Your task to perform on an android device: toggle priority inbox in the gmail app Image 0: 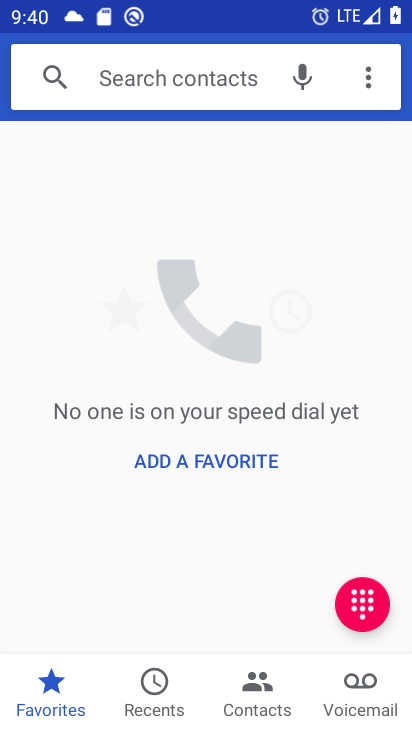
Step 0: press home button
Your task to perform on an android device: toggle priority inbox in the gmail app Image 1: 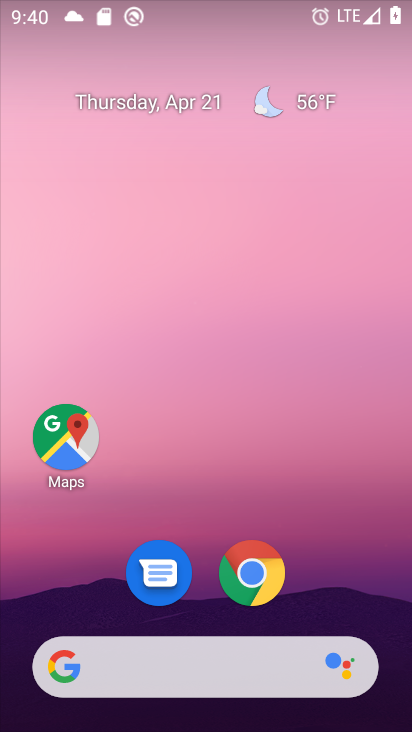
Step 1: drag from (198, 481) to (250, 20)
Your task to perform on an android device: toggle priority inbox in the gmail app Image 2: 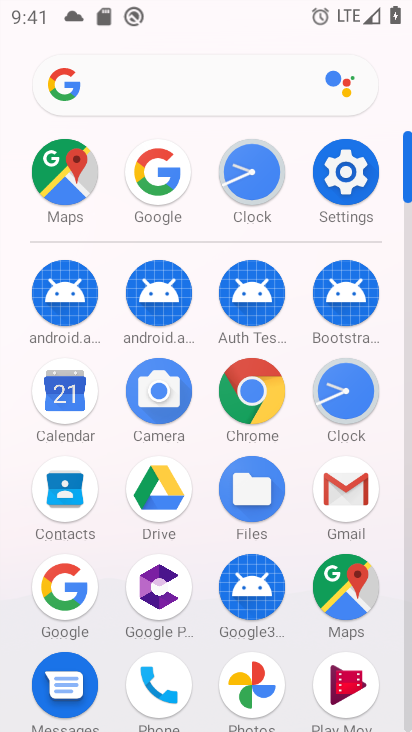
Step 2: click (344, 482)
Your task to perform on an android device: toggle priority inbox in the gmail app Image 3: 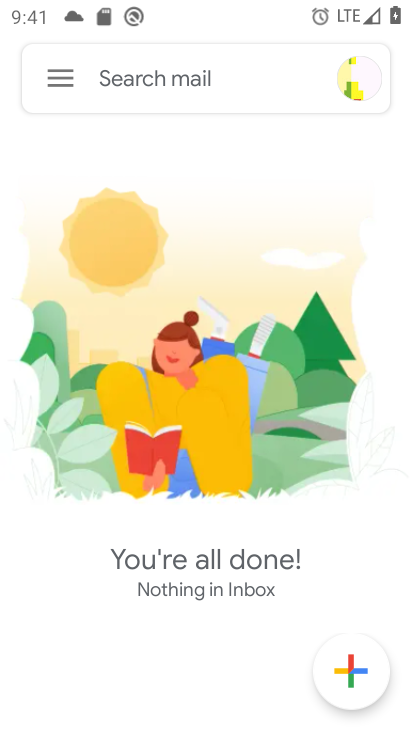
Step 3: click (64, 78)
Your task to perform on an android device: toggle priority inbox in the gmail app Image 4: 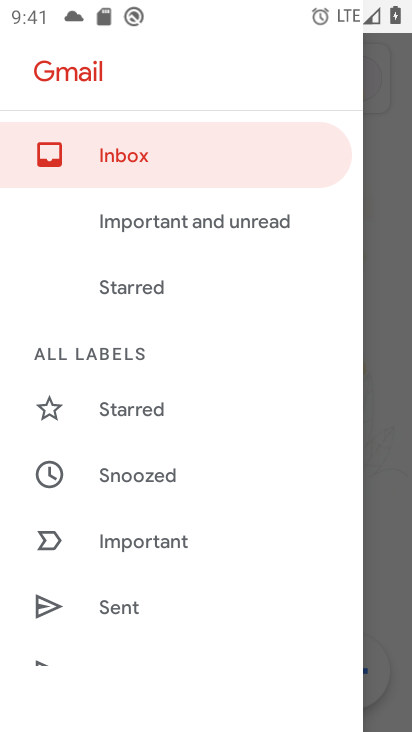
Step 4: drag from (192, 575) to (245, 430)
Your task to perform on an android device: toggle priority inbox in the gmail app Image 5: 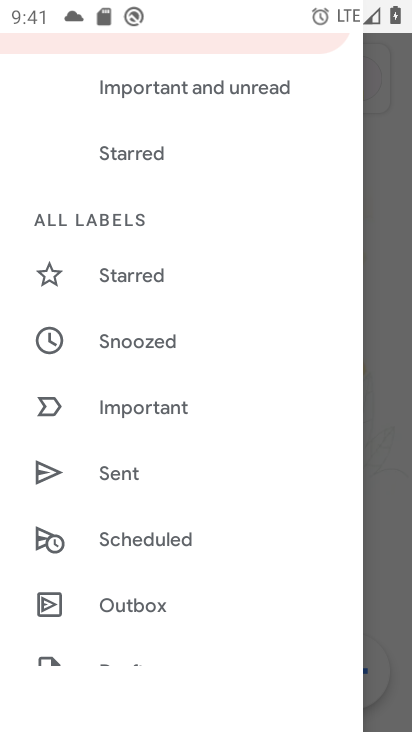
Step 5: drag from (172, 509) to (238, 426)
Your task to perform on an android device: toggle priority inbox in the gmail app Image 6: 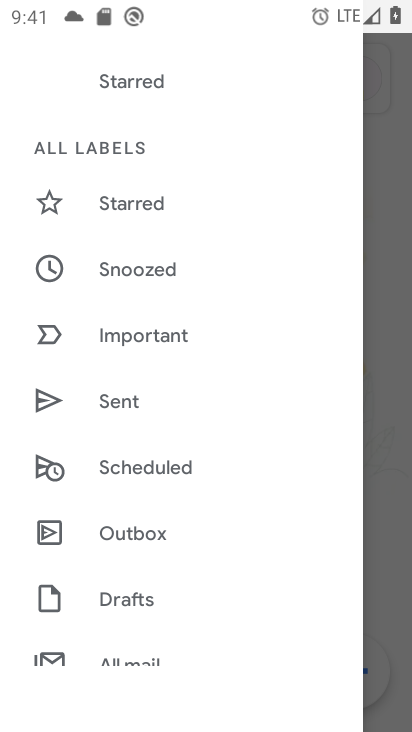
Step 6: drag from (175, 505) to (228, 430)
Your task to perform on an android device: toggle priority inbox in the gmail app Image 7: 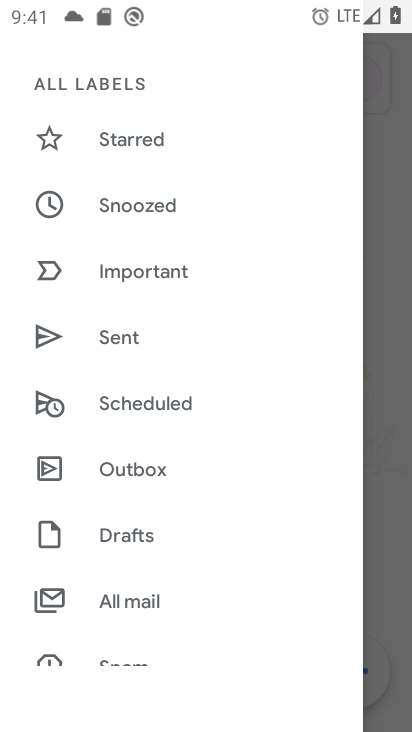
Step 7: drag from (170, 503) to (262, 402)
Your task to perform on an android device: toggle priority inbox in the gmail app Image 8: 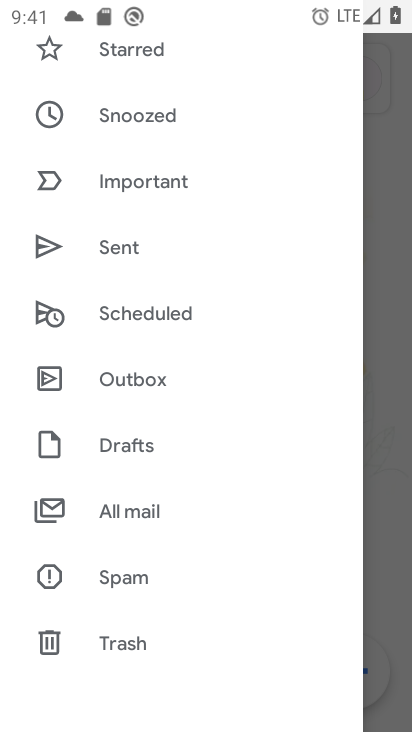
Step 8: drag from (181, 489) to (216, 404)
Your task to perform on an android device: toggle priority inbox in the gmail app Image 9: 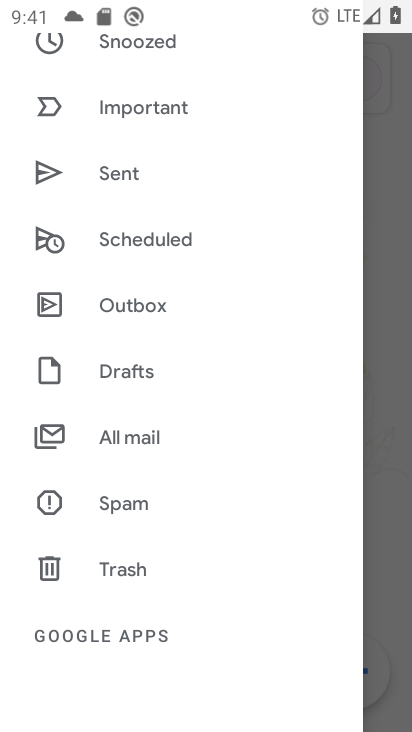
Step 9: drag from (160, 477) to (237, 389)
Your task to perform on an android device: toggle priority inbox in the gmail app Image 10: 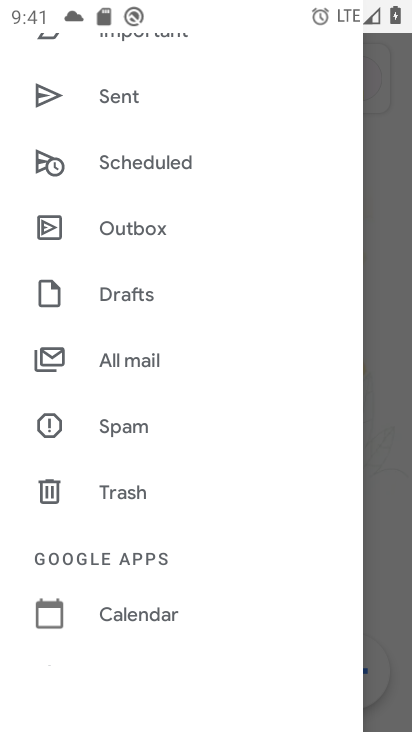
Step 10: drag from (171, 469) to (243, 384)
Your task to perform on an android device: toggle priority inbox in the gmail app Image 11: 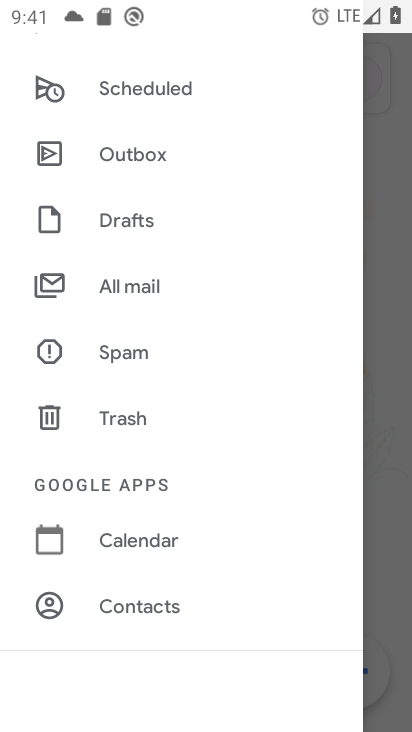
Step 11: drag from (199, 457) to (290, 347)
Your task to perform on an android device: toggle priority inbox in the gmail app Image 12: 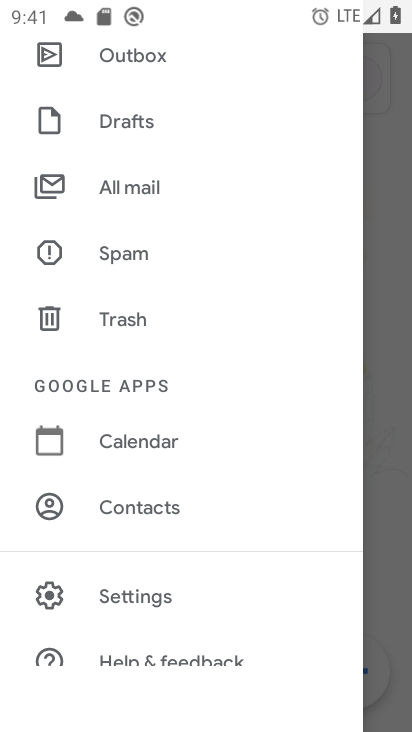
Step 12: click (128, 595)
Your task to perform on an android device: toggle priority inbox in the gmail app Image 13: 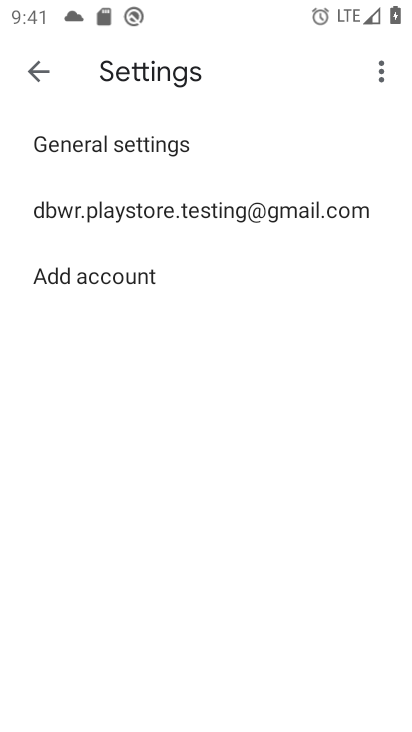
Step 13: click (246, 206)
Your task to perform on an android device: toggle priority inbox in the gmail app Image 14: 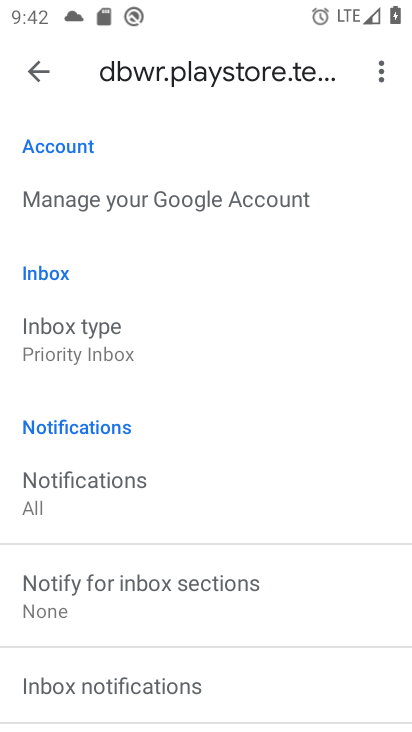
Step 14: click (33, 345)
Your task to perform on an android device: toggle priority inbox in the gmail app Image 15: 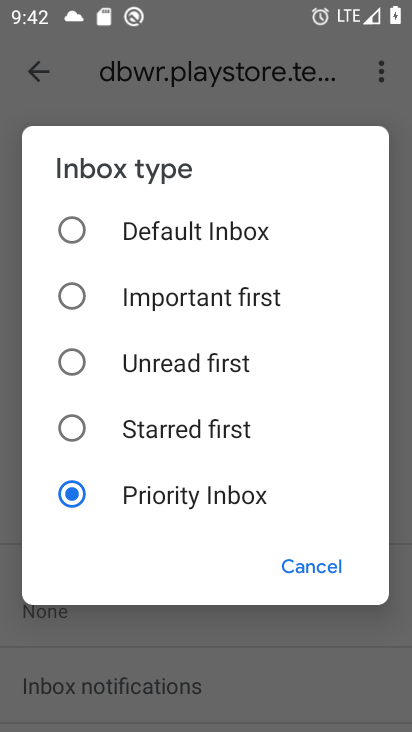
Step 15: click (63, 218)
Your task to perform on an android device: toggle priority inbox in the gmail app Image 16: 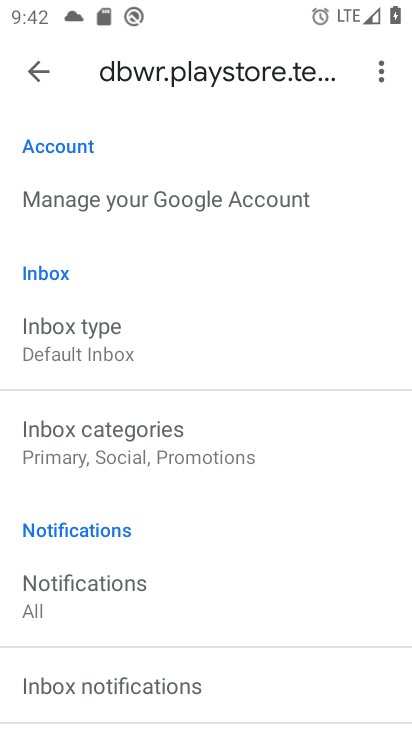
Step 16: task complete